Your task to perform on an android device: Is it going to rain tomorrow? Image 0: 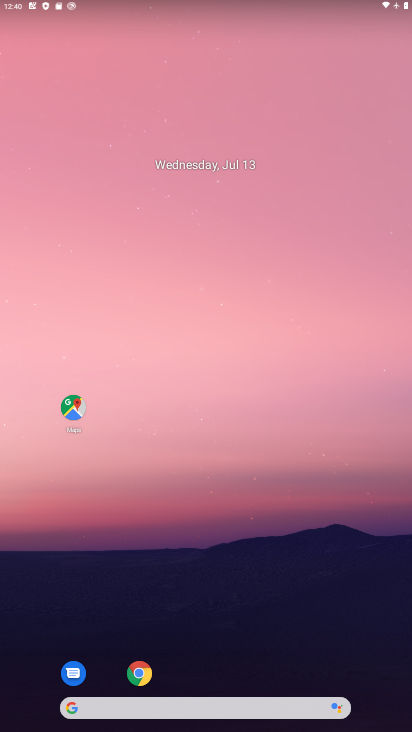
Step 0: drag from (302, 633) to (319, 75)
Your task to perform on an android device: Is it going to rain tomorrow? Image 1: 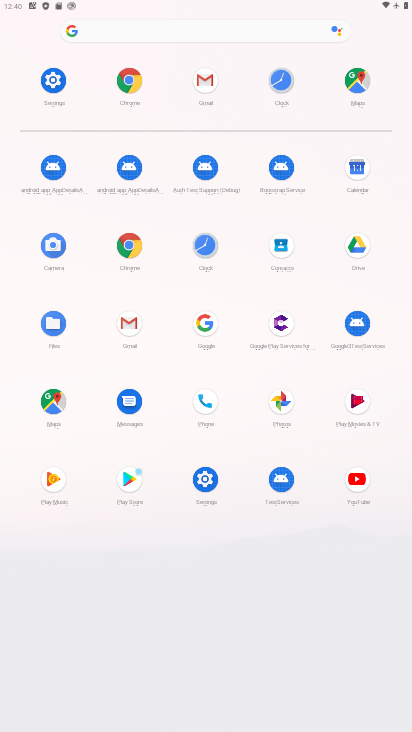
Step 1: click (132, 38)
Your task to perform on an android device: Is it going to rain tomorrow? Image 2: 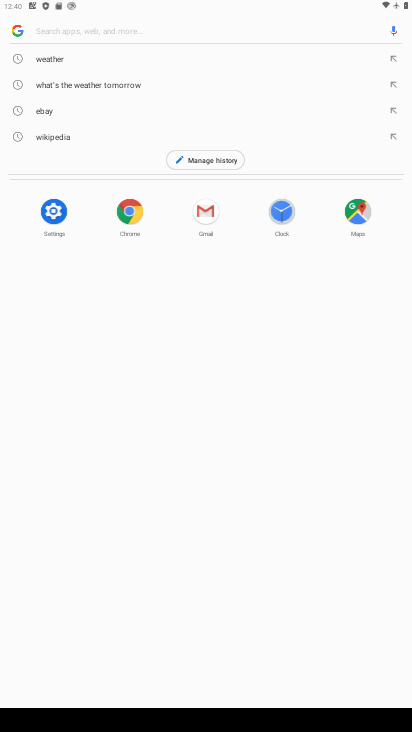
Step 2: type "wather"
Your task to perform on an android device: Is it going to rain tomorrow? Image 3: 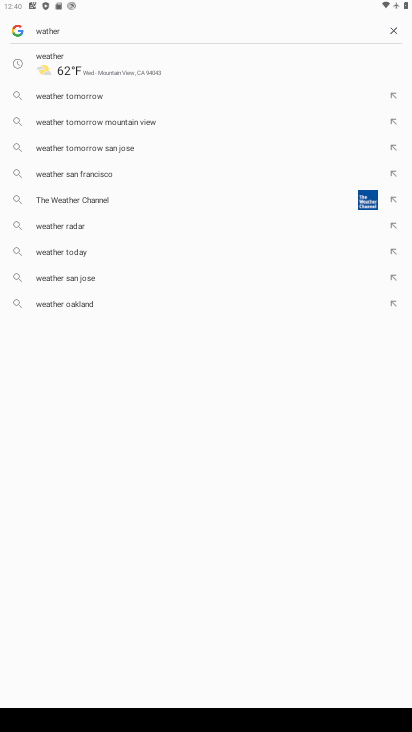
Step 3: click (160, 43)
Your task to perform on an android device: Is it going to rain tomorrow? Image 4: 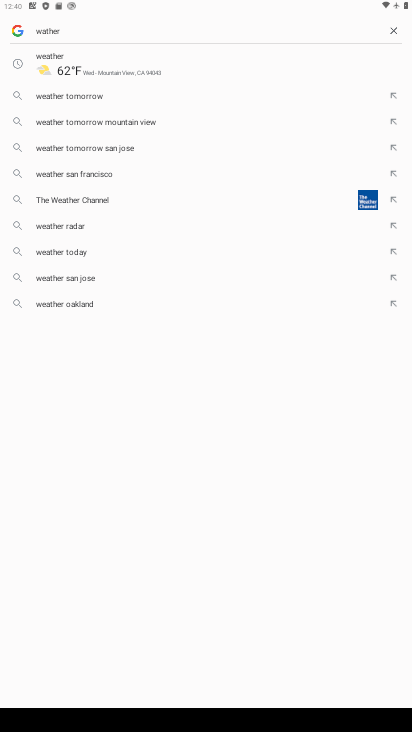
Step 4: click (136, 60)
Your task to perform on an android device: Is it going to rain tomorrow? Image 5: 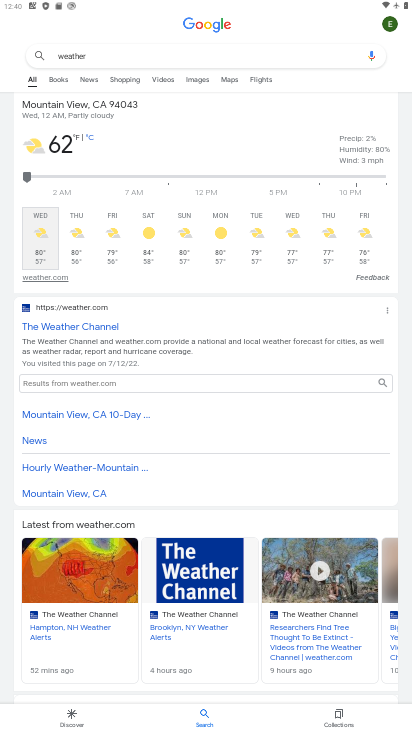
Step 5: task complete